Your task to perform on an android device: change alarm snooze length Image 0: 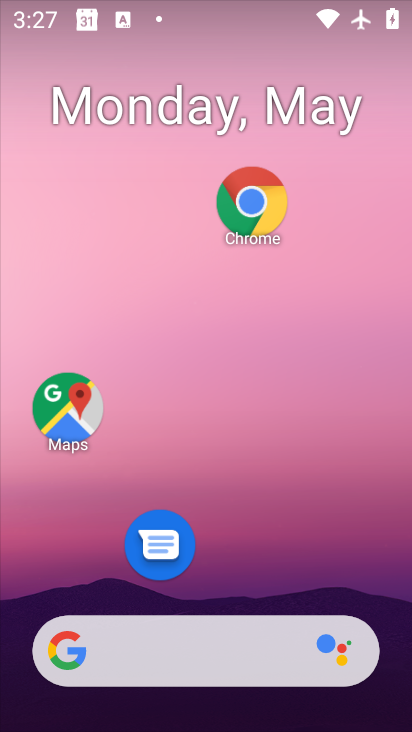
Step 0: drag from (207, 594) to (179, 234)
Your task to perform on an android device: change alarm snooze length Image 1: 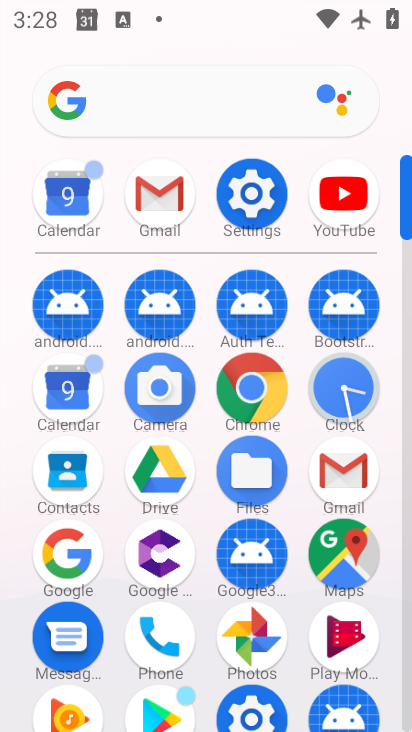
Step 1: click (348, 403)
Your task to perform on an android device: change alarm snooze length Image 2: 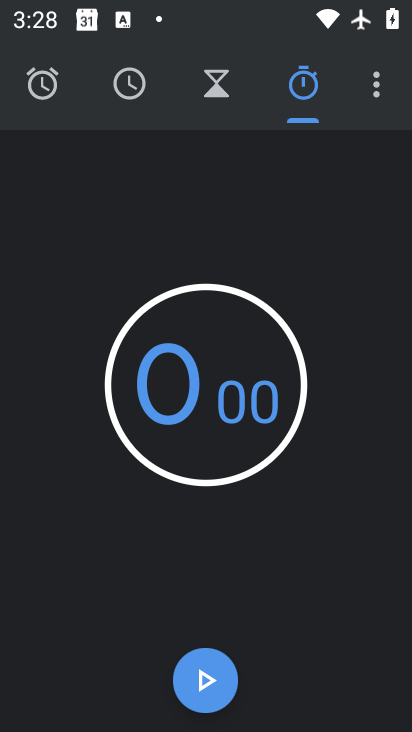
Step 2: click (373, 100)
Your task to perform on an android device: change alarm snooze length Image 3: 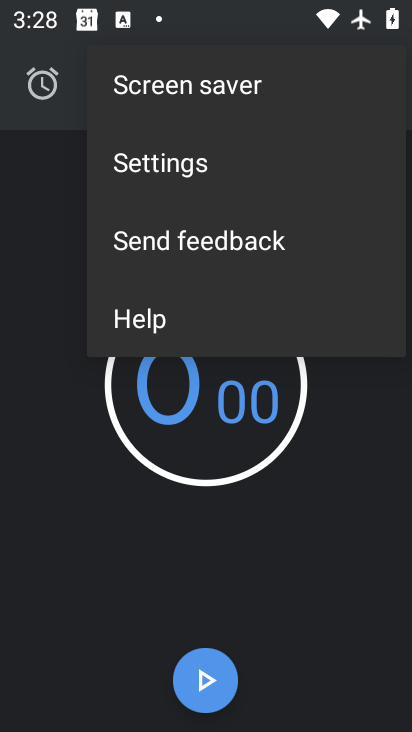
Step 3: click (203, 162)
Your task to perform on an android device: change alarm snooze length Image 4: 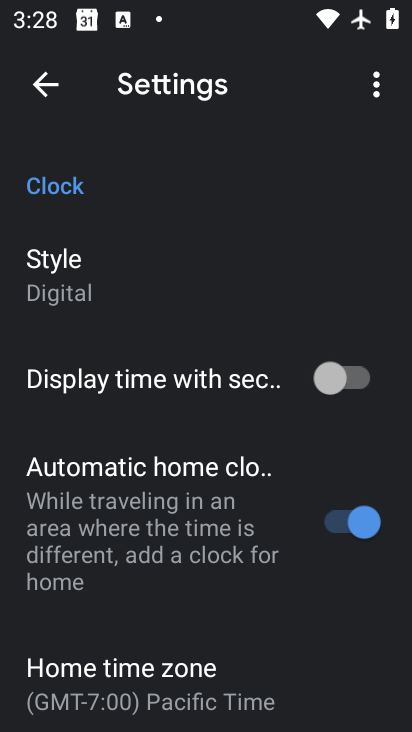
Step 4: drag from (142, 578) to (153, 281)
Your task to perform on an android device: change alarm snooze length Image 5: 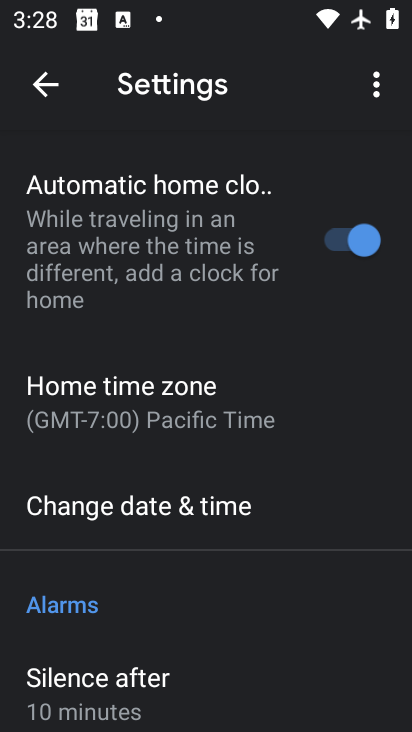
Step 5: drag from (192, 548) to (213, 312)
Your task to perform on an android device: change alarm snooze length Image 6: 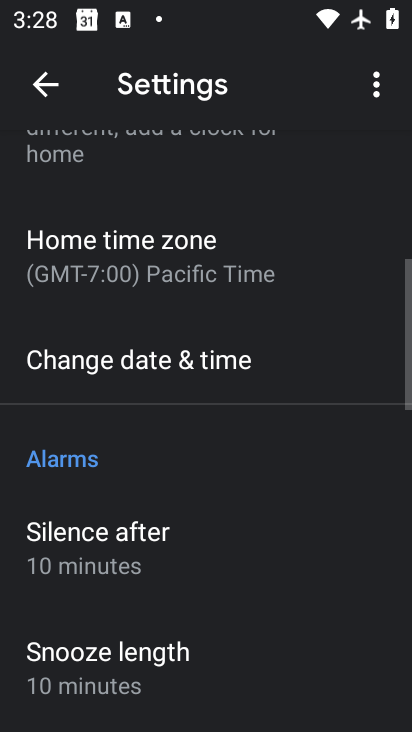
Step 6: drag from (224, 567) to (275, 414)
Your task to perform on an android device: change alarm snooze length Image 7: 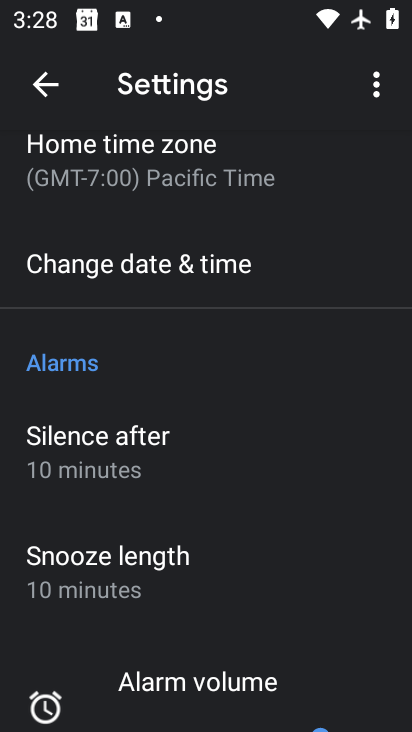
Step 7: click (199, 558)
Your task to perform on an android device: change alarm snooze length Image 8: 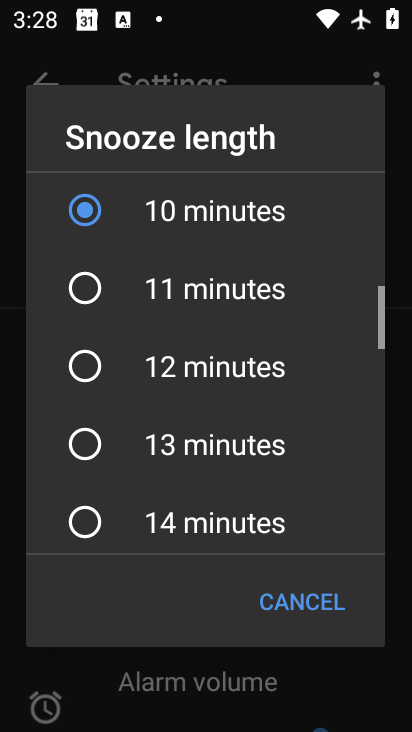
Step 8: click (167, 442)
Your task to perform on an android device: change alarm snooze length Image 9: 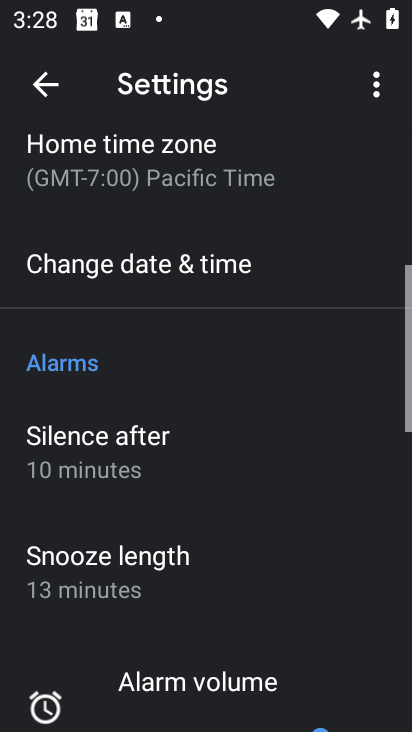
Step 9: task complete